Your task to perform on an android device: change the clock style Image 0: 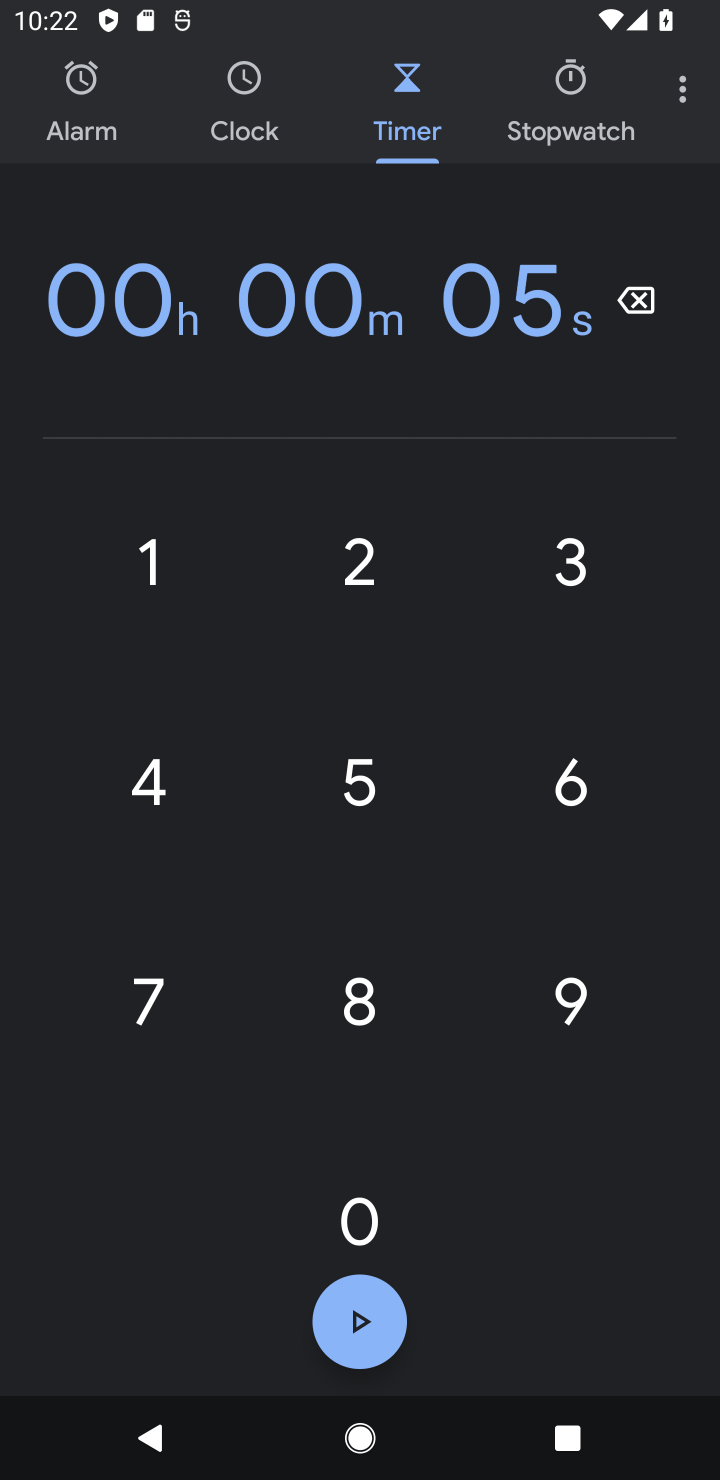
Step 0: press home button
Your task to perform on an android device: change the clock style Image 1: 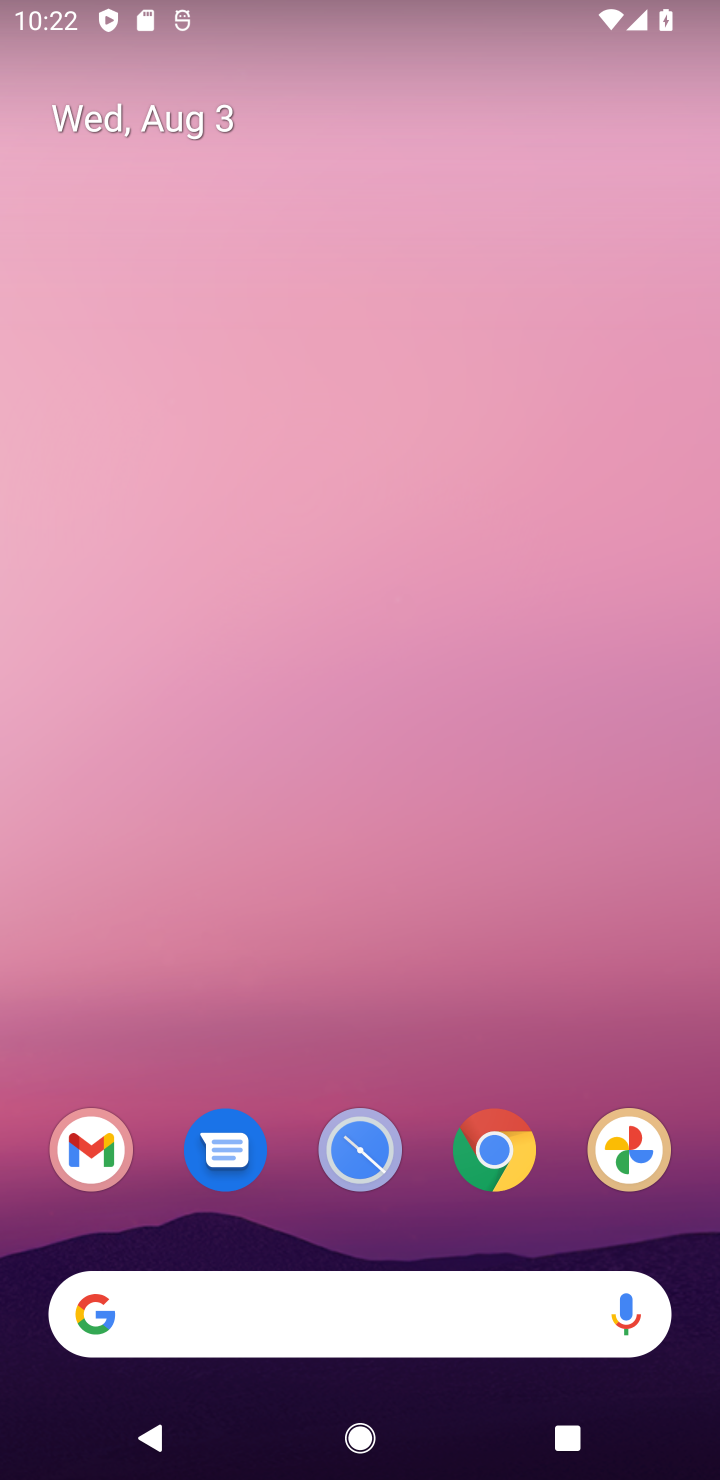
Step 1: drag from (461, 912) to (430, 275)
Your task to perform on an android device: change the clock style Image 2: 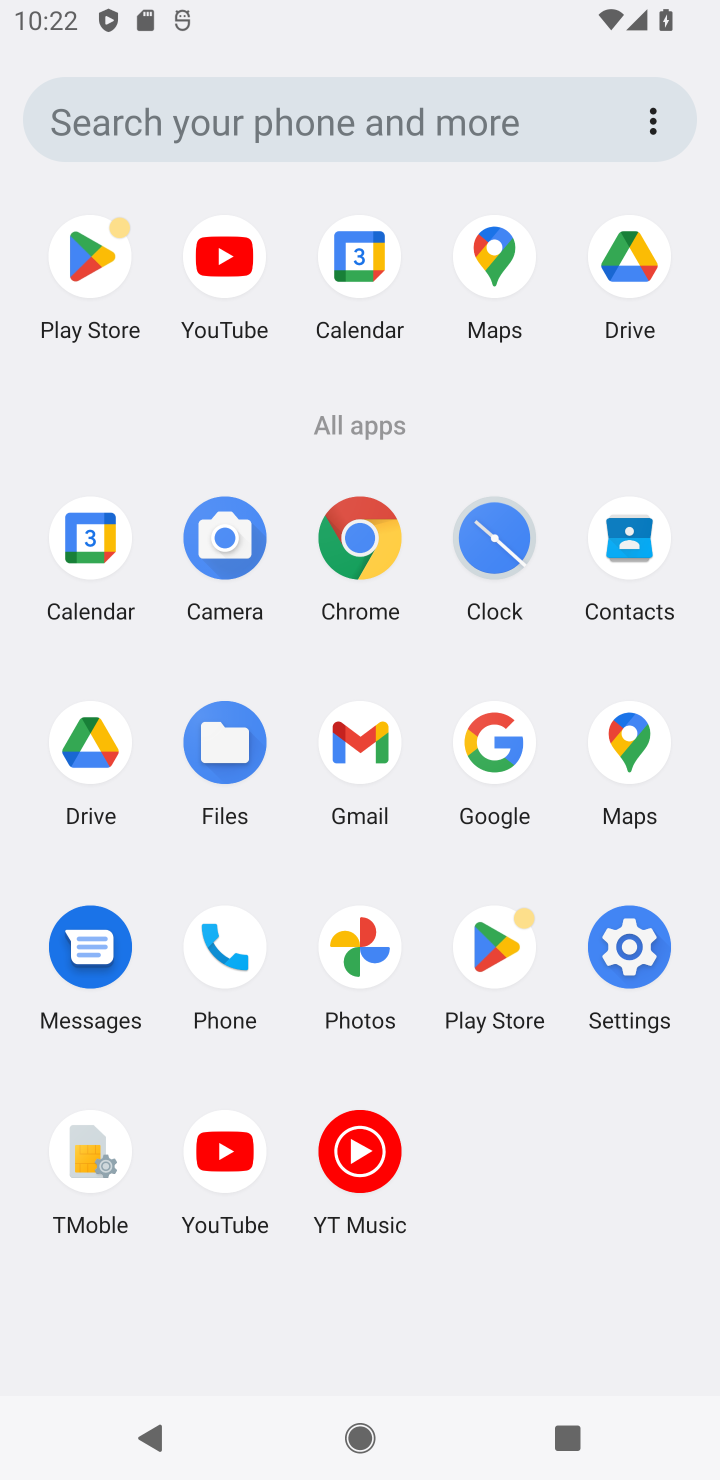
Step 2: click (504, 545)
Your task to perform on an android device: change the clock style Image 3: 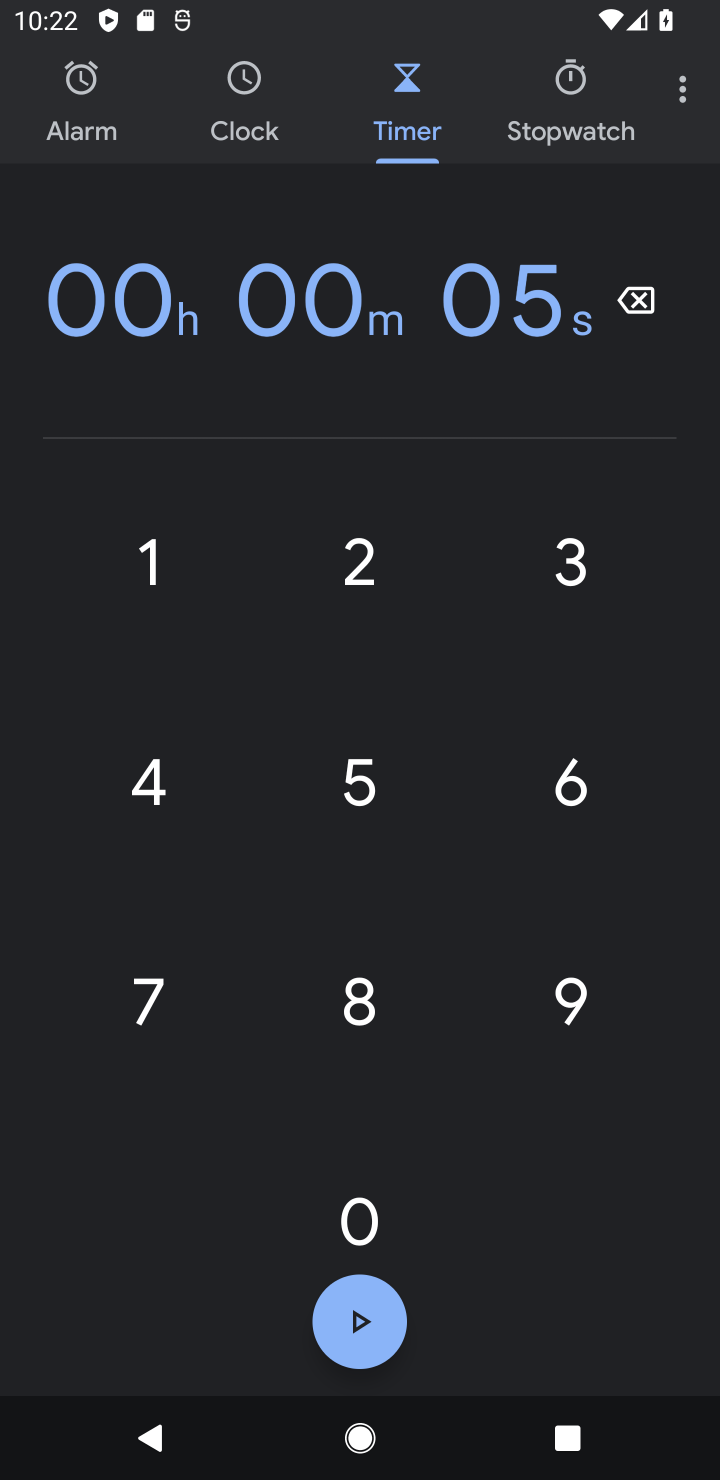
Step 3: click (684, 97)
Your task to perform on an android device: change the clock style Image 4: 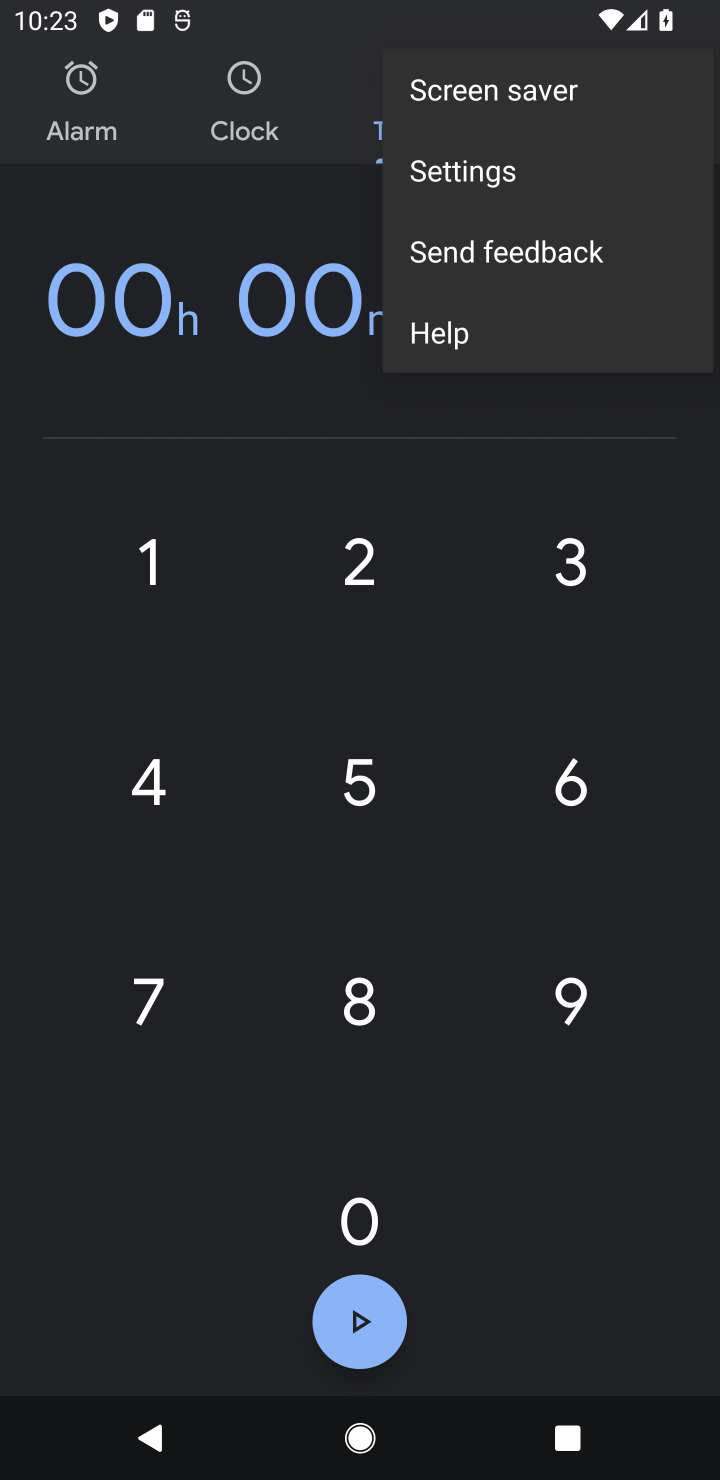
Step 4: click (500, 176)
Your task to perform on an android device: change the clock style Image 5: 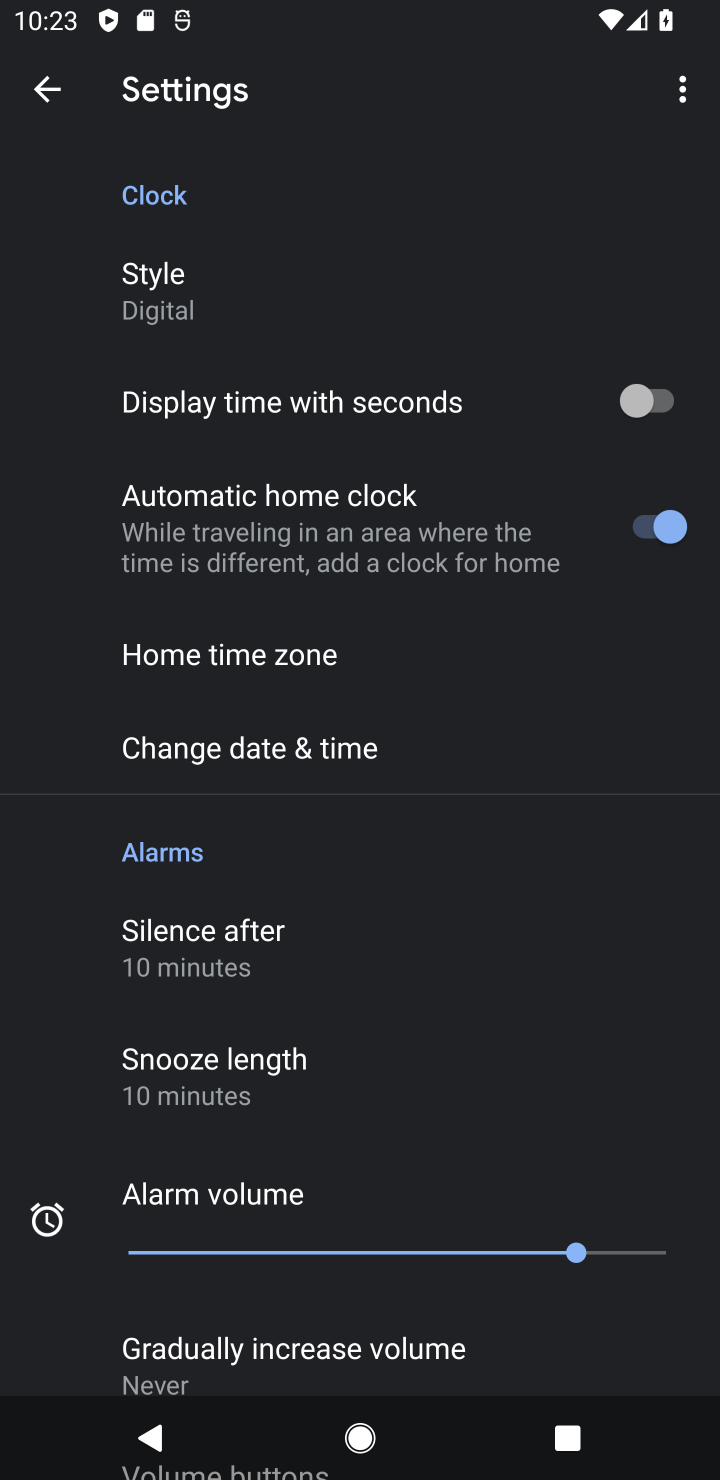
Step 5: drag from (541, 869) to (557, 606)
Your task to perform on an android device: change the clock style Image 6: 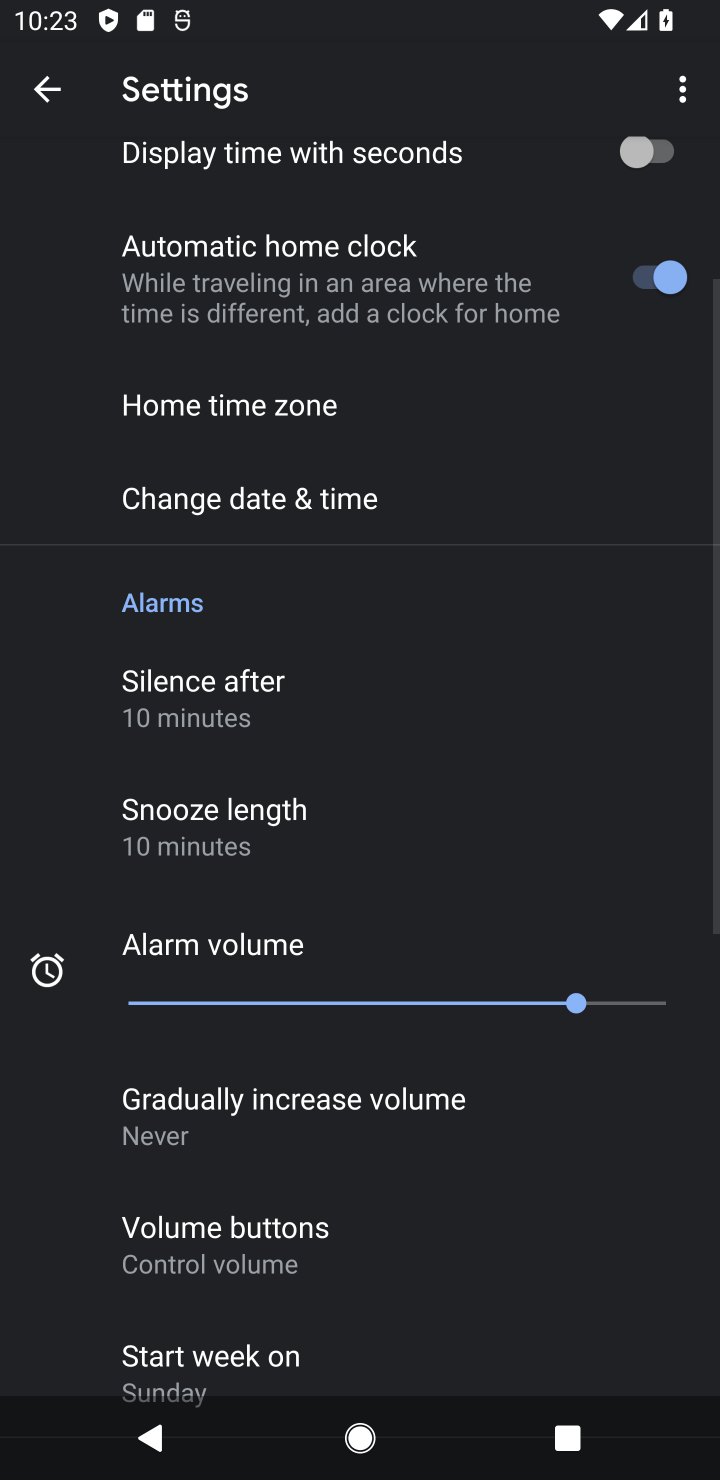
Step 6: drag from (565, 854) to (590, 549)
Your task to perform on an android device: change the clock style Image 7: 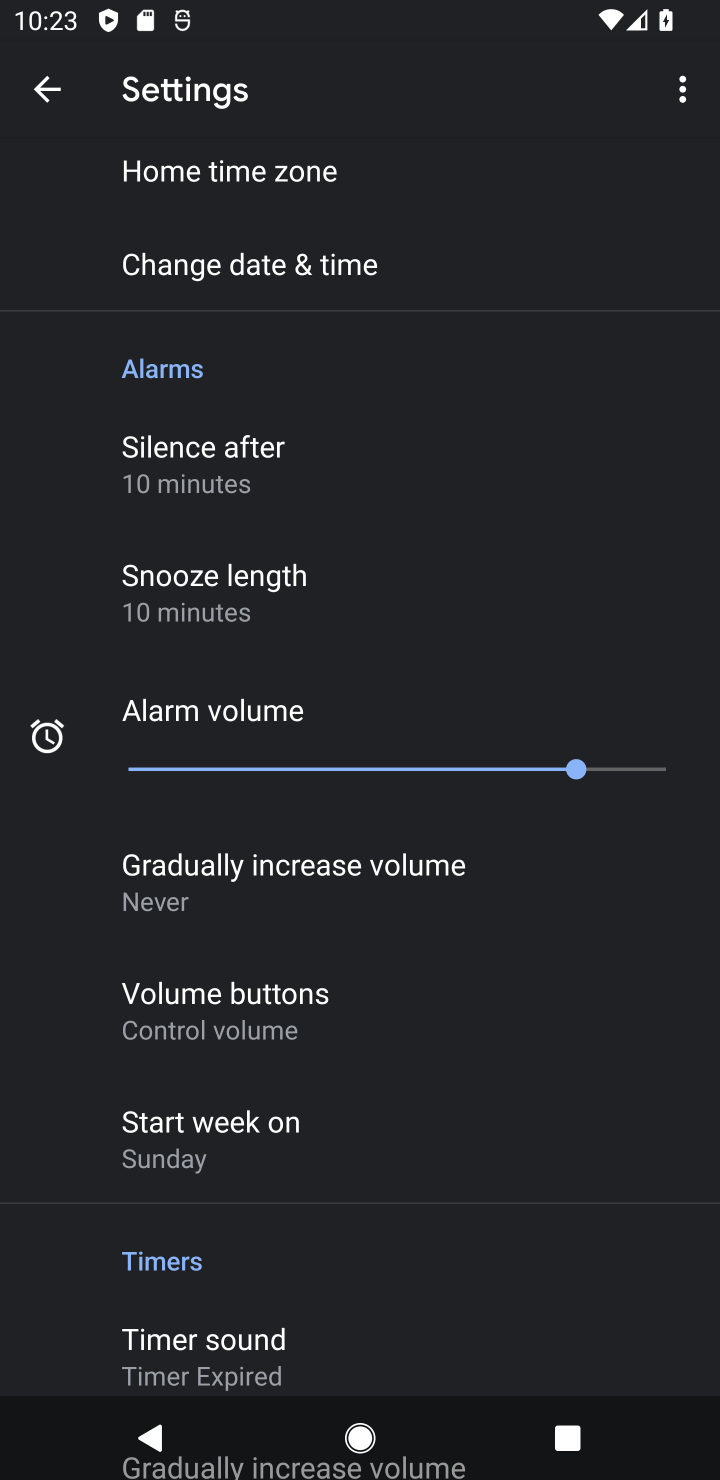
Step 7: drag from (599, 1041) to (609, 779)
Your task to perform on an android device: change the clock style Image 8: 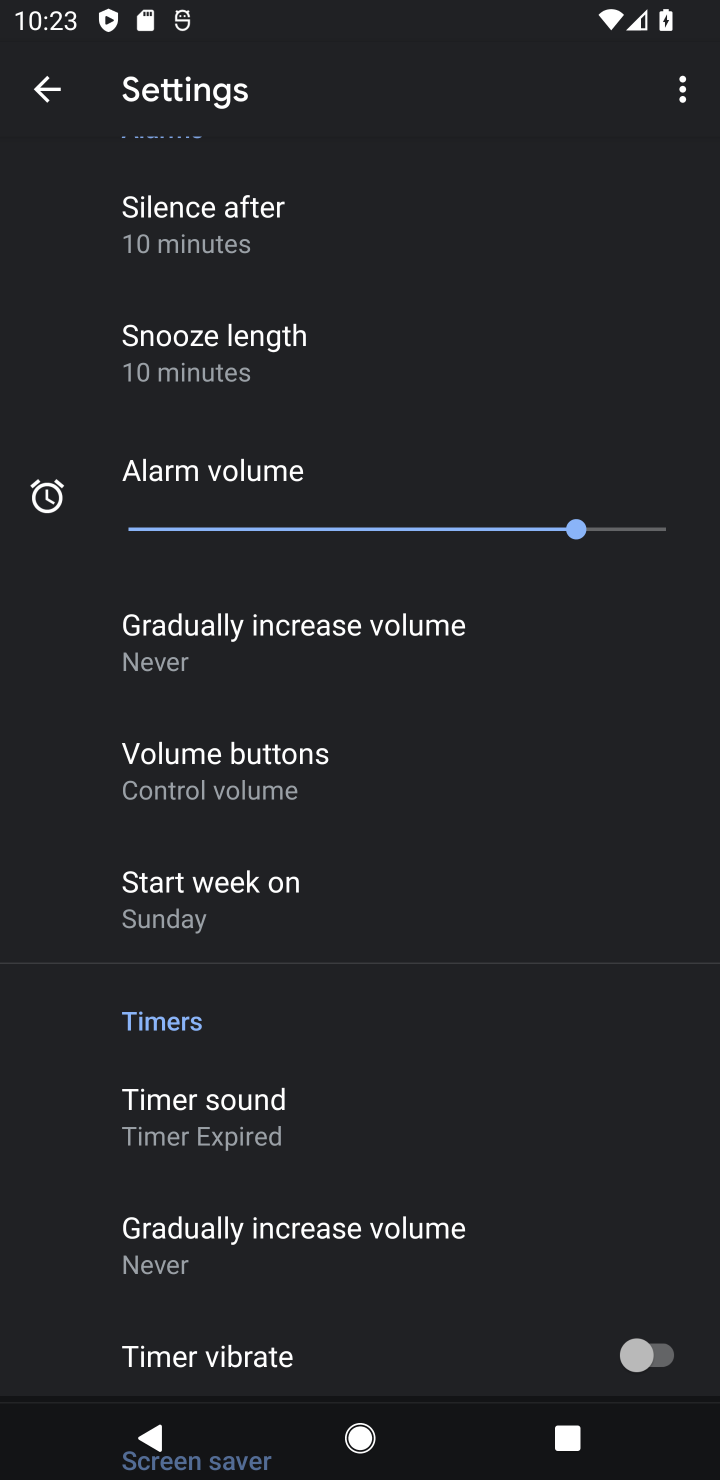
Step 8: drag from (584, 1143) to (543, 668)
Your task to perform on an android device: change the clock style Image 9: 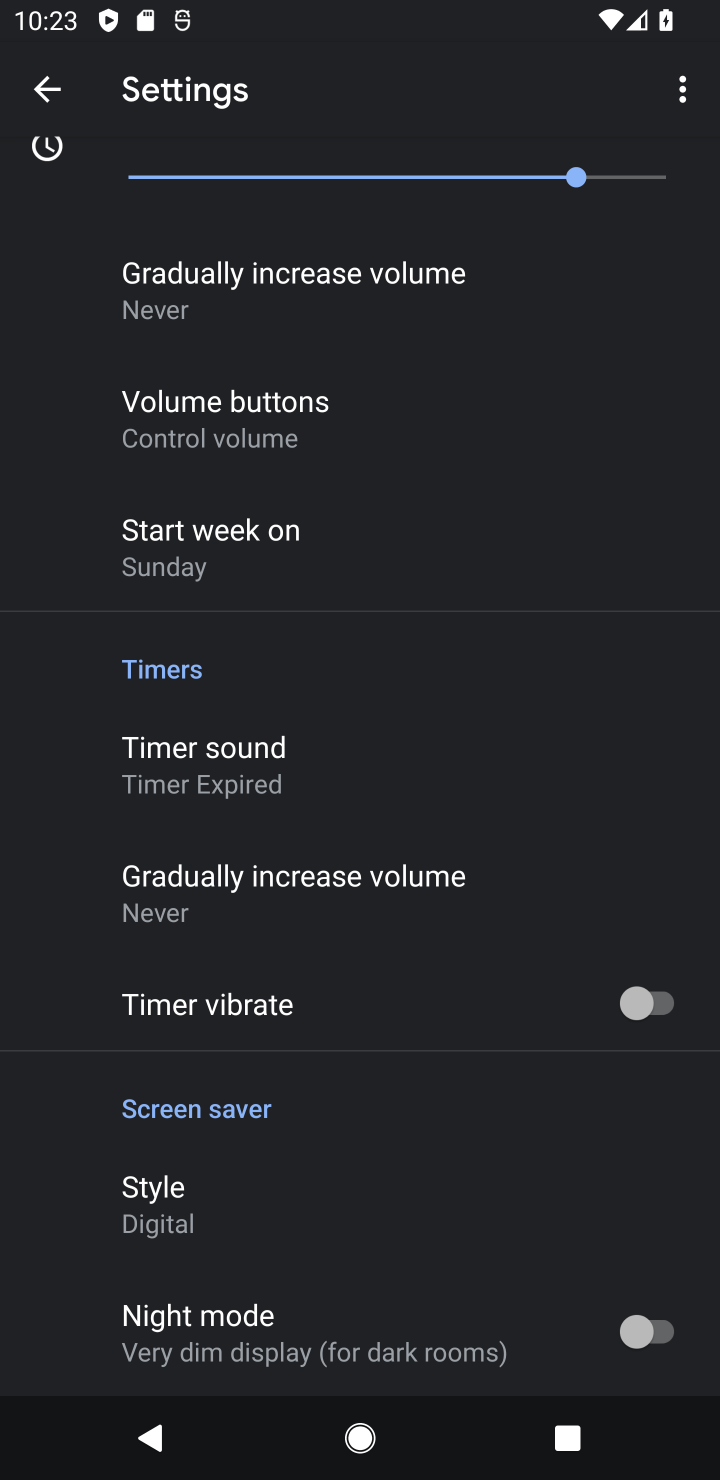
Step 9: drag from (549, 630) to (547, 879)
Your task to perform on an android device: change the clock style Image 10: 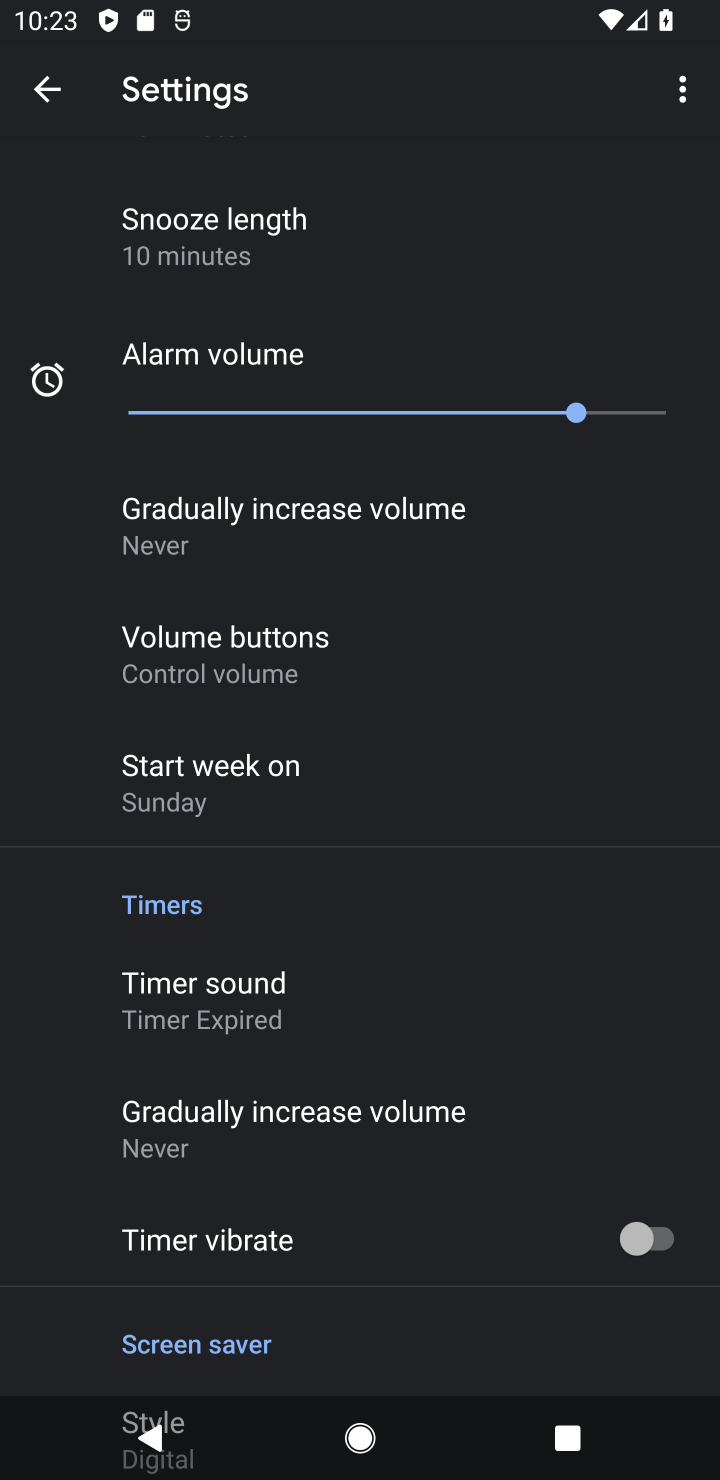
Step 10: drag from (533, 572) to (532, 838)
Your task to perform on an android device: change the clock style Image 11: 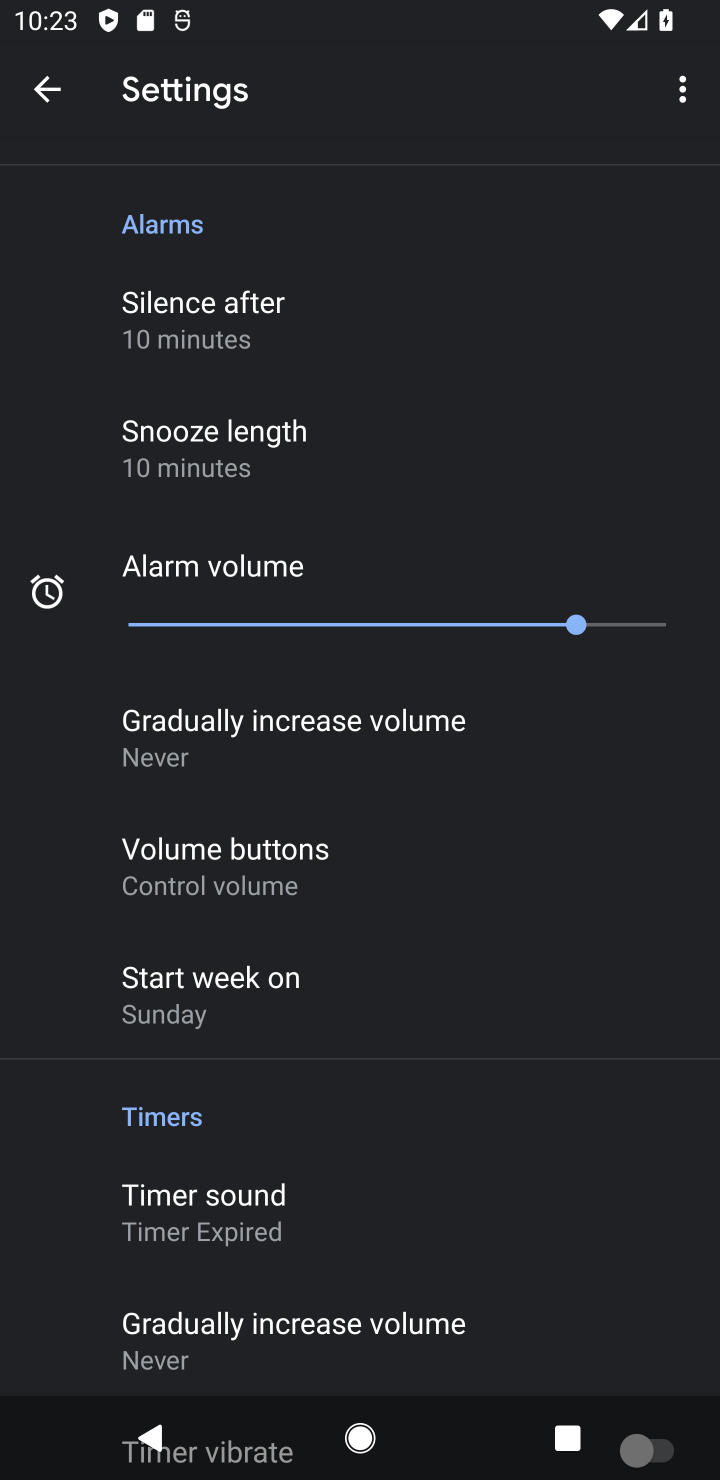
Step 11: drag from (532, 436) to (532, 754)
Your task to perform on an android device: change the clock style Image 12: 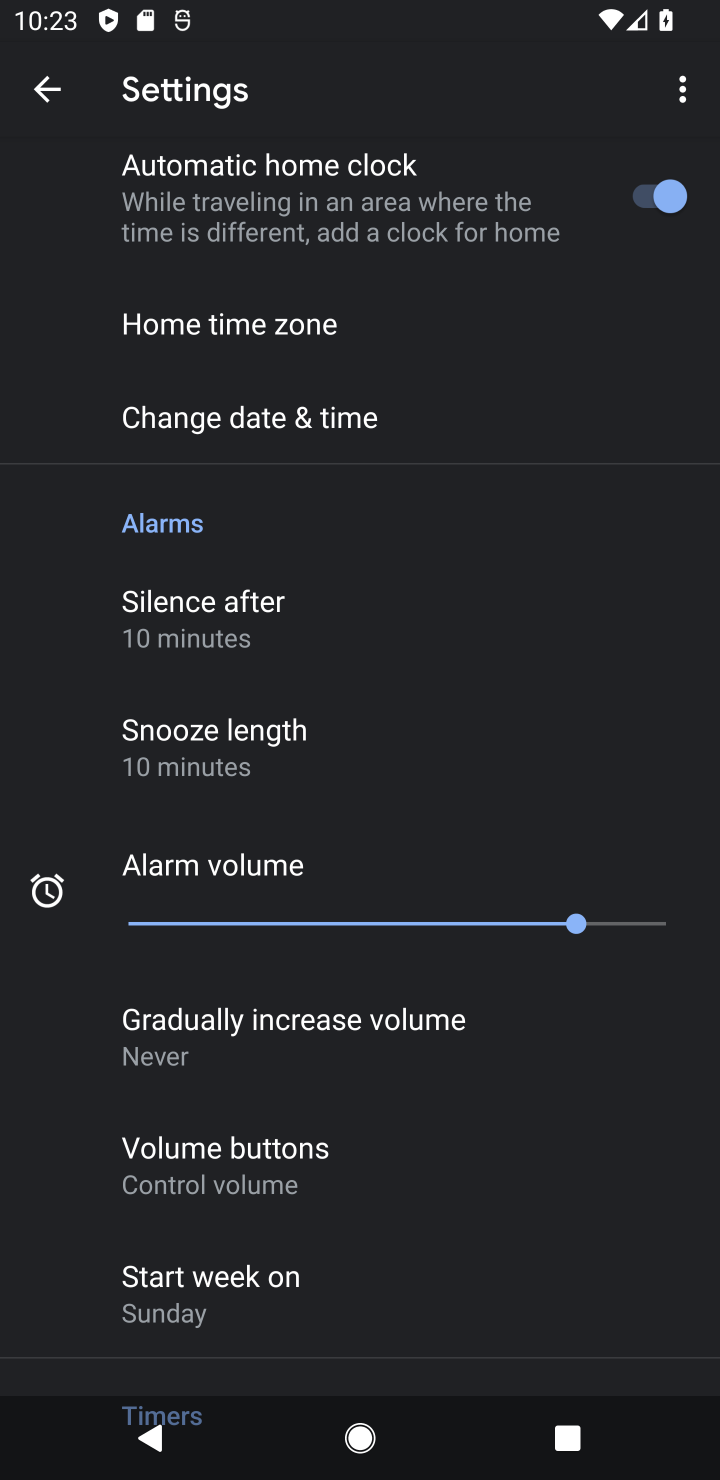
Step 12: drag from (534, 332) to (539, 734)
Your task to perform on an android device: change the clock style Image 13: 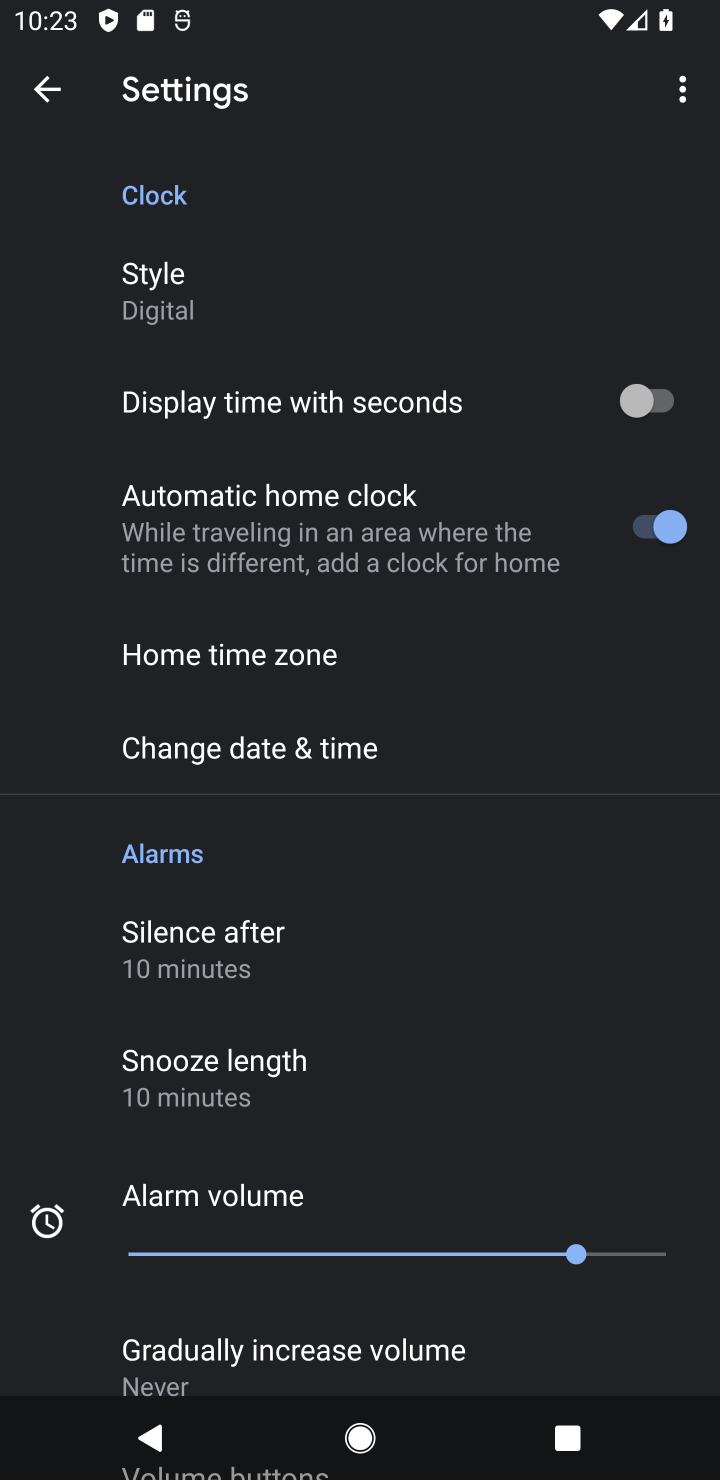
Step 13: drag from (485, 304) to (487, 653)
Your task to perform on an android device: change the clock style Image 14: 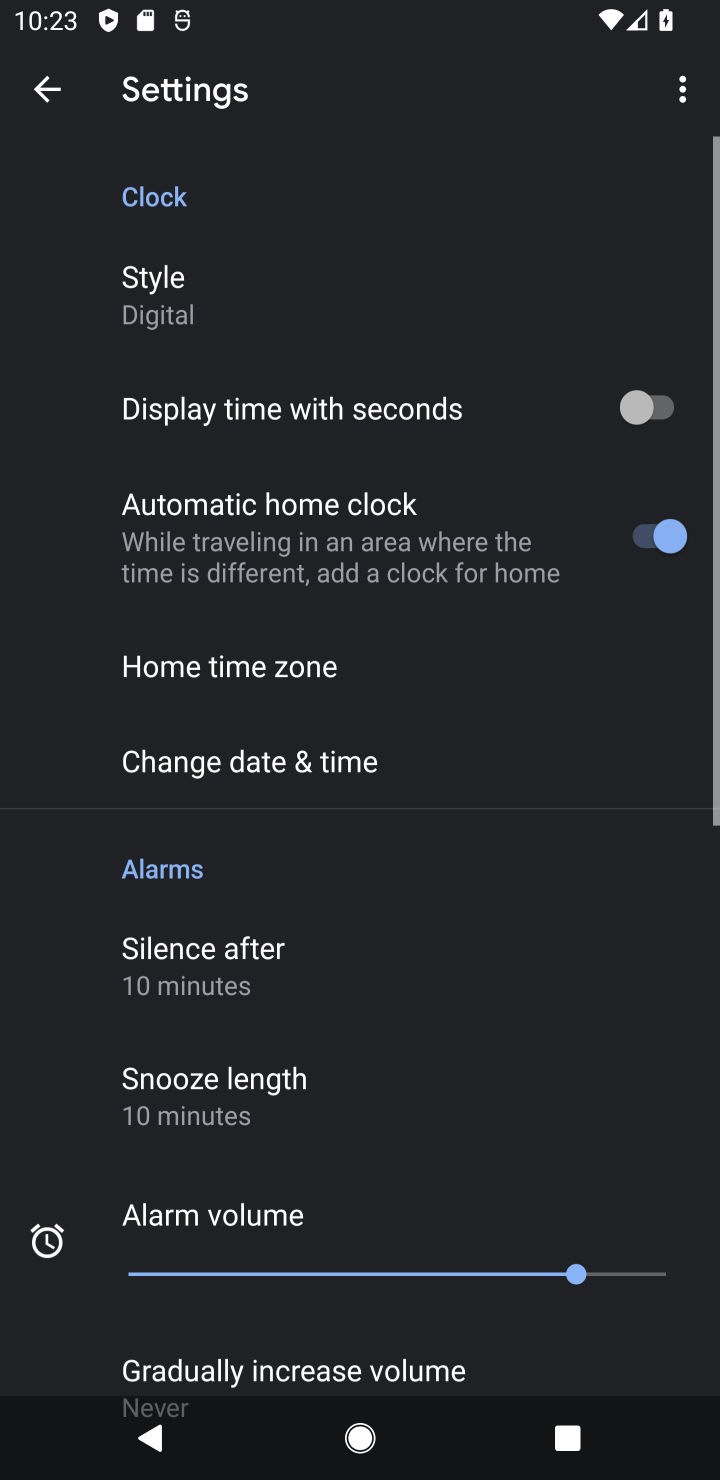
Step 14: click (243, 325)
Your task to perform on an android device: change the clock style Image 15: 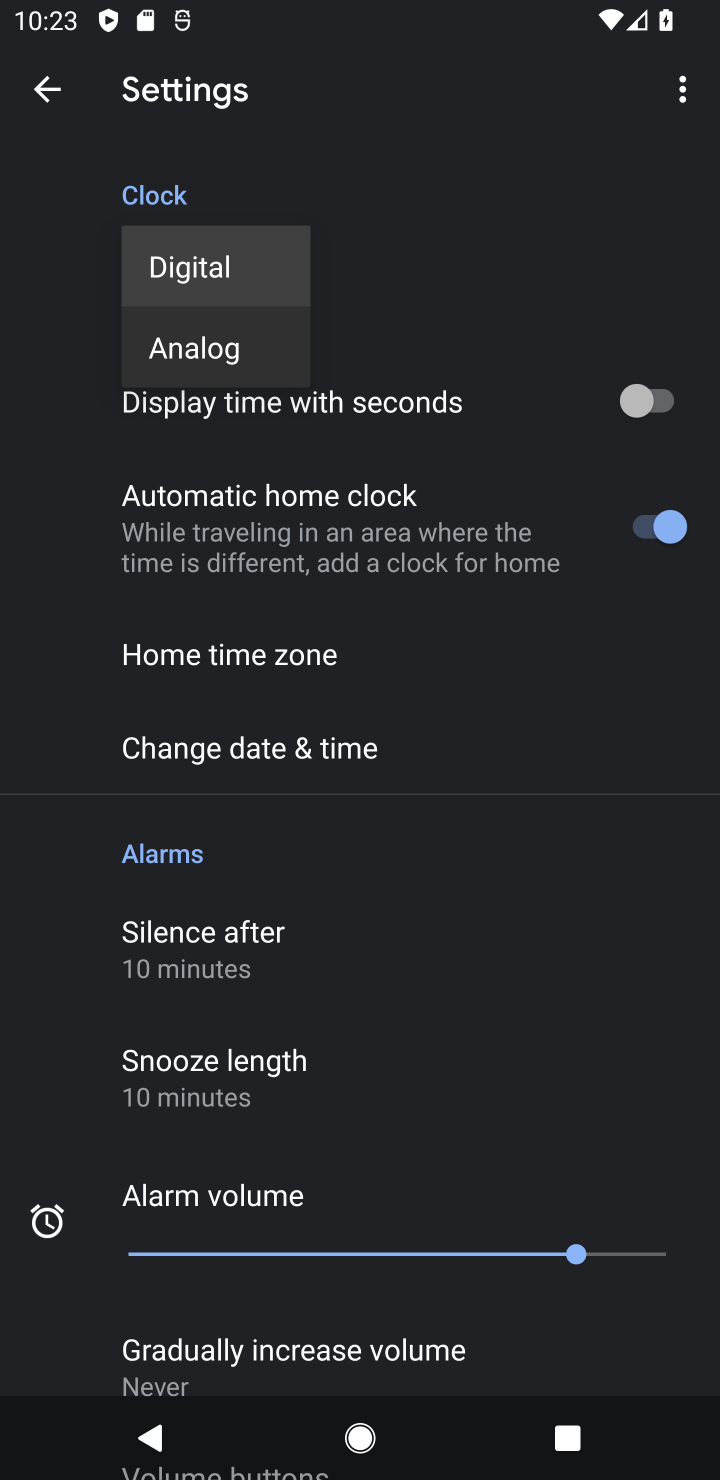
Step 15: click (238, 364)
Your task to perform on an android device: change the clock style Image 16: 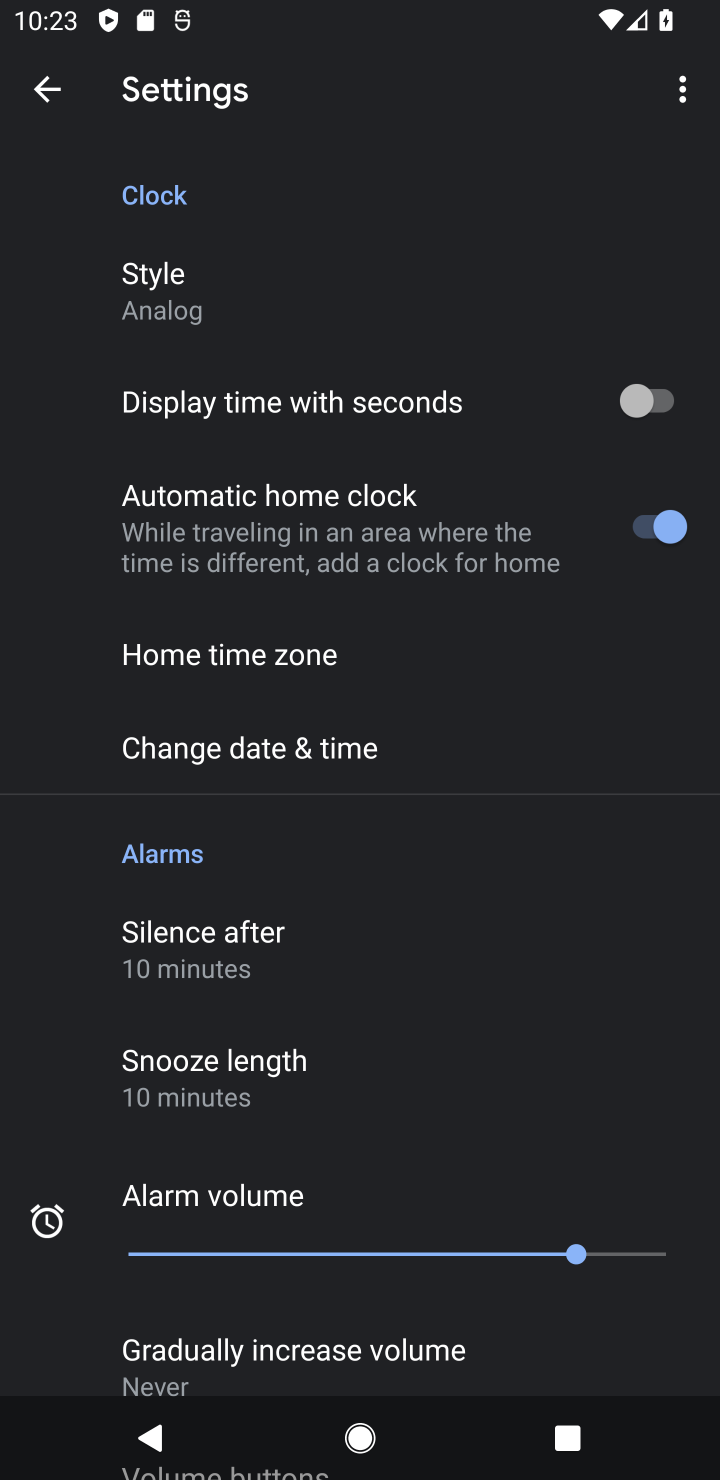
Step 16: task complete